Your task to perform on an android device: open device folders in google photos Image 0: 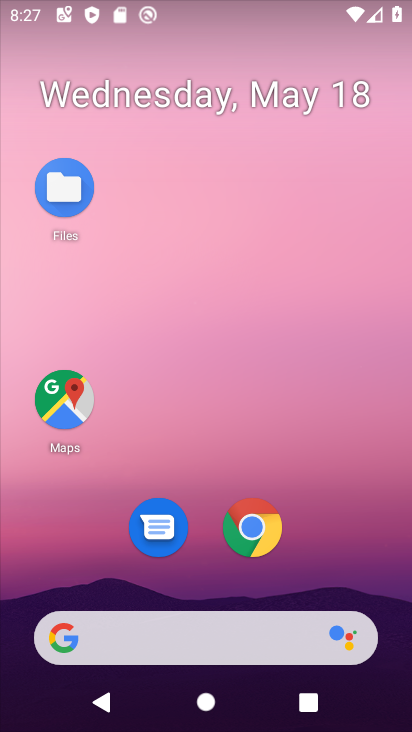
Step 0: drag from (271, 661) to (145, 156)
Your task to perform on an android device: open device folders in google photos Image 1: 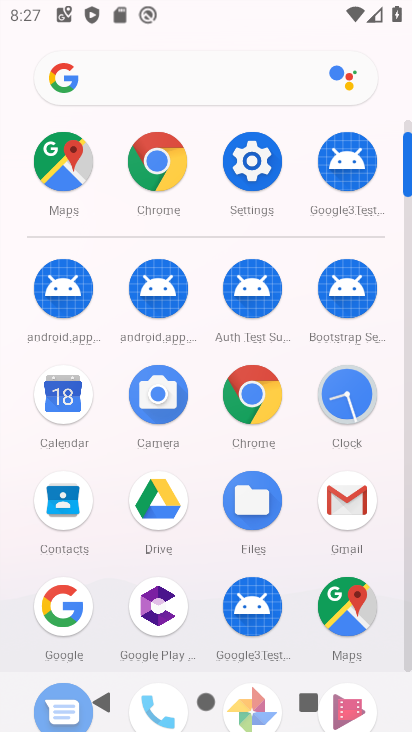
Step 1: drag from (188, 556) to (160, 397)
Your task to perform on an android device: open device folders in google photos Image 2: 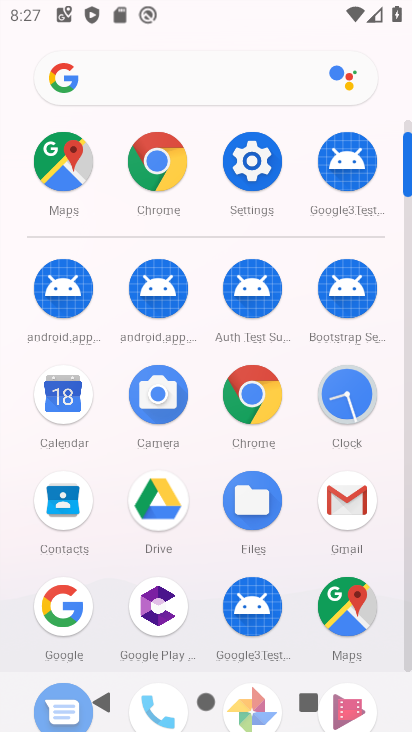
Step 2: click (211, 416)
Your task to perform on an android device: open device folders in google photos Image 3: 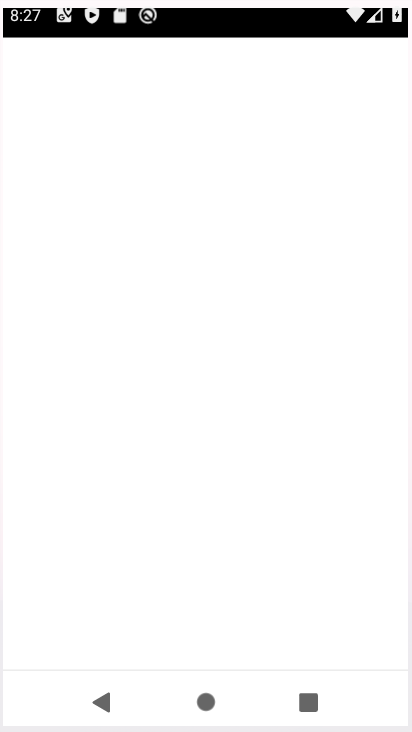
Step 3: drag from (271, 509) to (265, 278)
Your task to perform on an android device: open device folders in google photos Image 4: 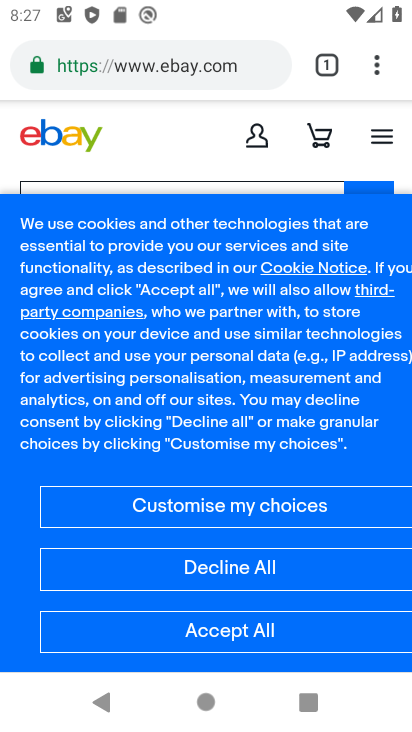
Step 4: press back button
Your task to perform on an android device: open device folders in google photos Image 5: 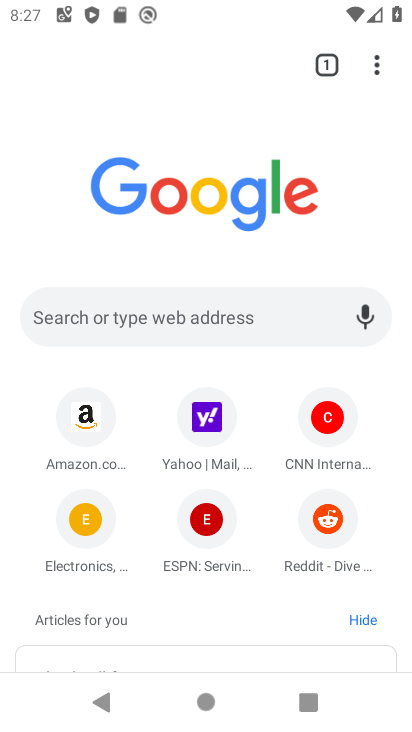
Step 5: press back button
Your task to perform on an android device: open device folders in google photos Image 6: 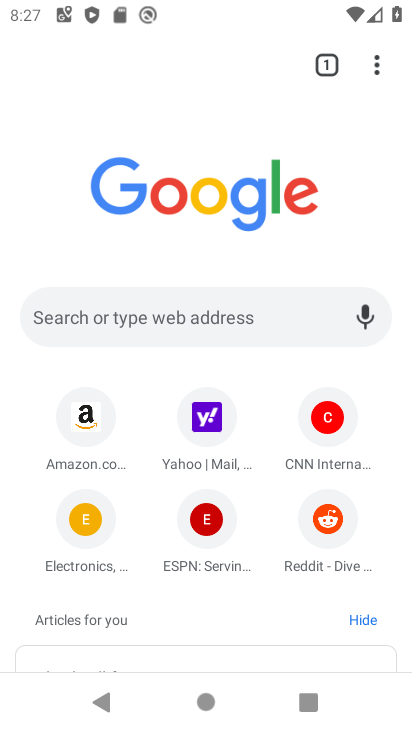
Step 6: press back button
Your task to perform on an android device: open device folders in google photos Image 7: 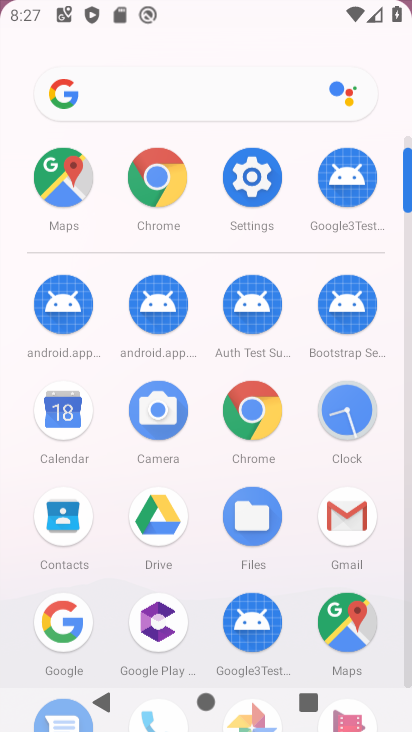
Step 7: press back button
Your task to perform on an android device: open device folders in google photos Image 8: 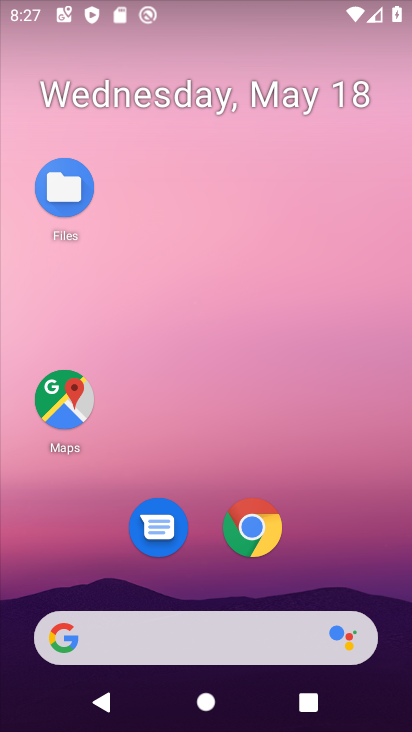
Step 8: press back button
Your task to perform on an android device: open device folders in google photos Image 9: 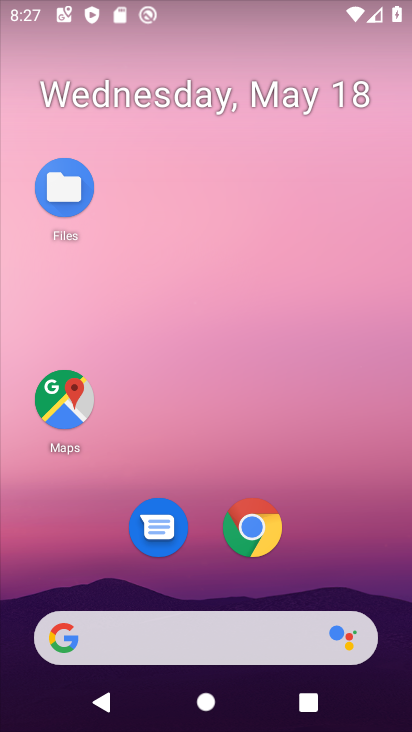
Step 9: drag from (297, 619) to (274, 182)
Your task to perform on an android device: open device folders in google photos Image 10: 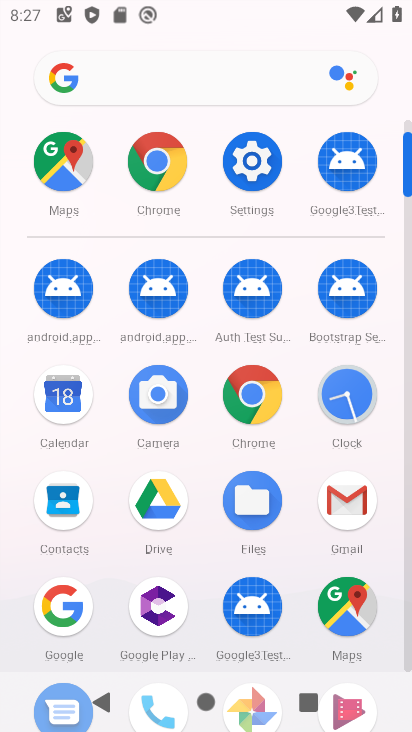
Step 10: drag from (313, 595) to (258, 131)
Your task to perform on an android device: open device folders in google photos Image 11: 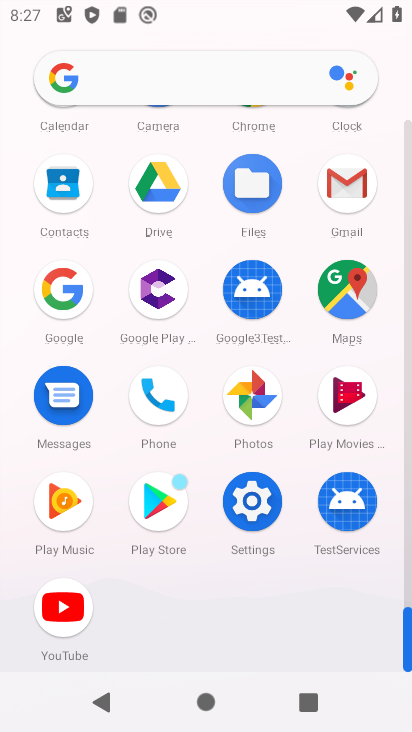
Step 11: drag from (292, 454) to (314, 25)
Your task to perform on an android device: open device folders in google photos Image 12: 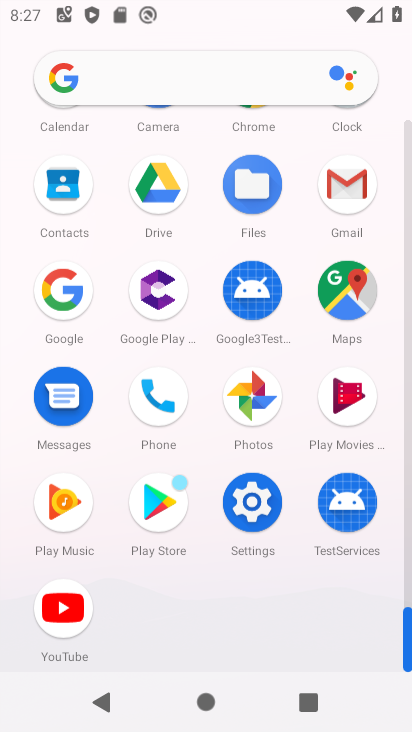
Step 12: click (254, 387)
Your task to perform on an android device: open device folders in google photos Image 13: 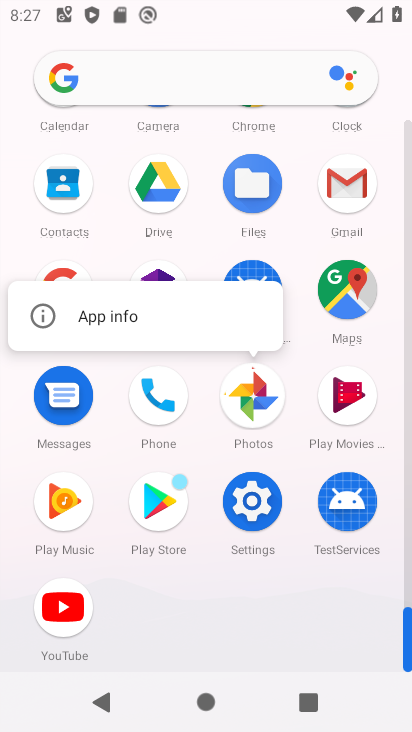
Step 13: click (255, 385)
Your task to perform on an android device: open device folders in google photos Image 14: 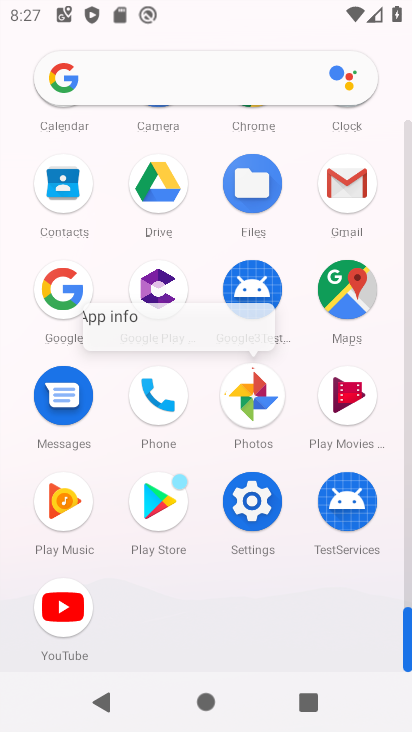
Step 14: click (253, 388)
Your task to perform on an android device: open device folders in google photos Image 15: 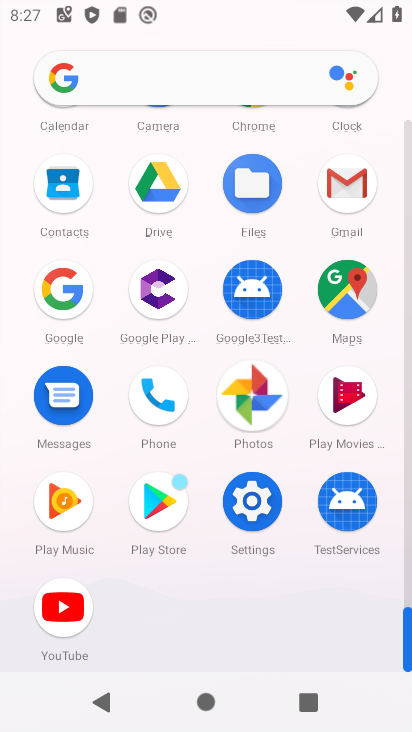
Step 15: click (254, 388)
Your task to perform on an android device: open device folders in google photos Image 16: 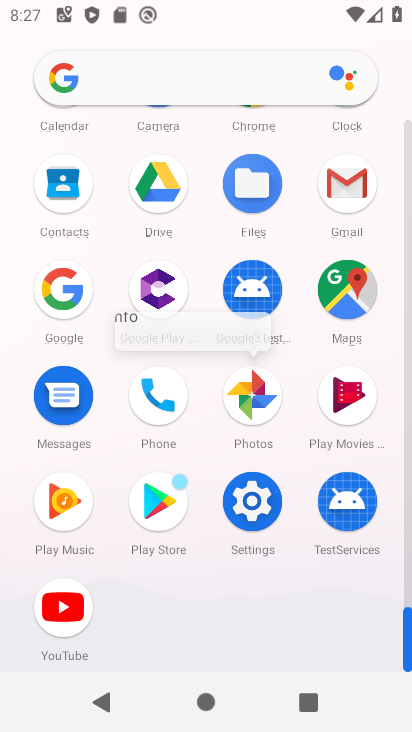
Step 16: click (254, 388)
Your task to perform on an android device: open device folders in google photos Image 17: 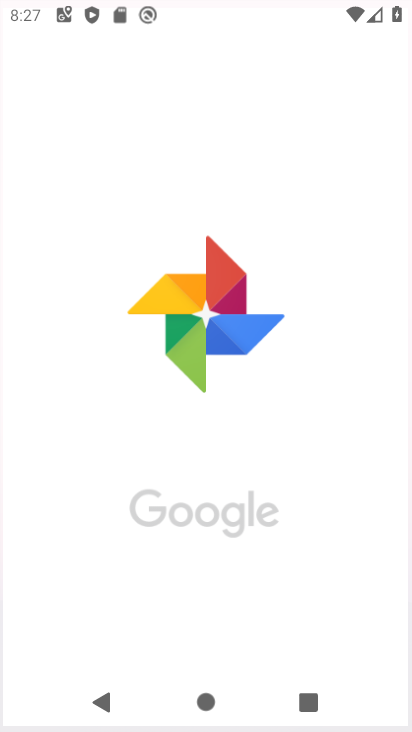
Step 17: click (256, 388)
Your task to perform on an android device: open device folders in google photos Image 18: 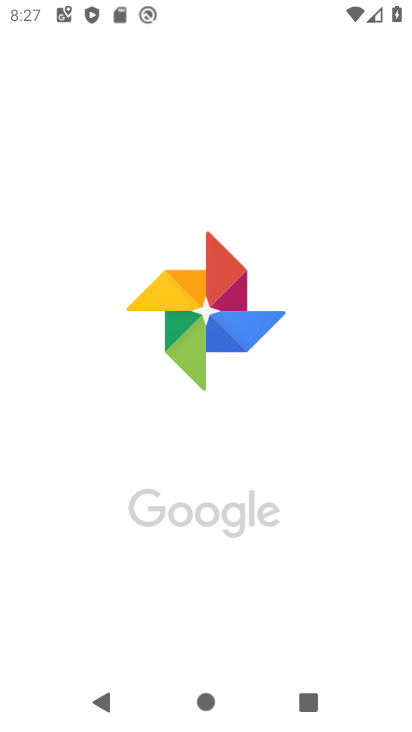
Step 18: click (256, 388)
Your task to perform on an android device: open device folders in google photos Image 19: 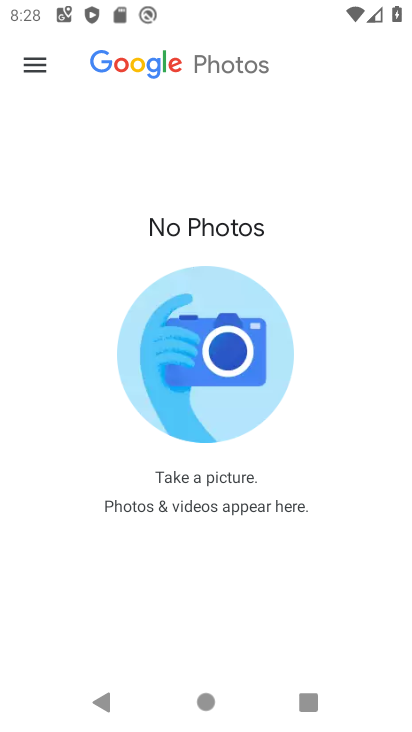
Step 19: click (32, 66)
Your task to perform on an android device: open device folders in google photos Image 20: 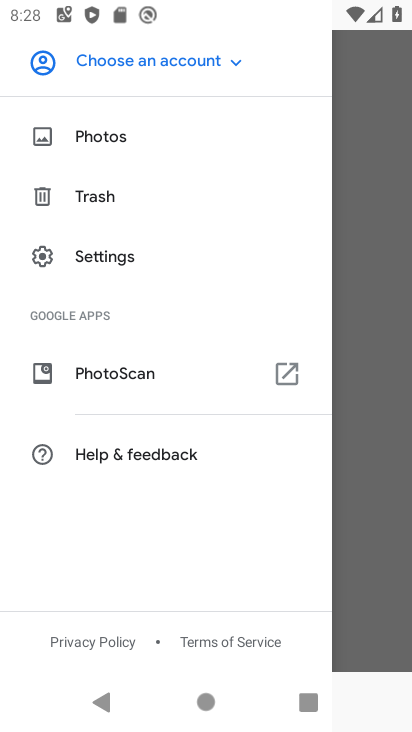
Step 20: drag from (112, 185) to (132, 554)
Your task to perform on an android device: open device folders in google photos Image 21: 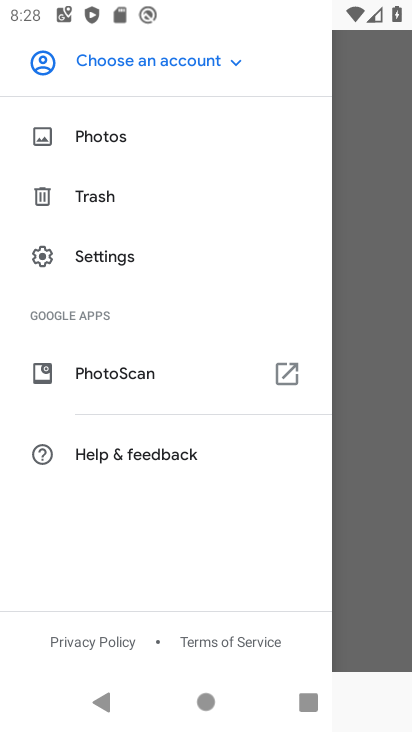
Step 21: drag from (116, 115) to (133, 440)
Your task to perform on an android device: open device folders in google photos Image 22: 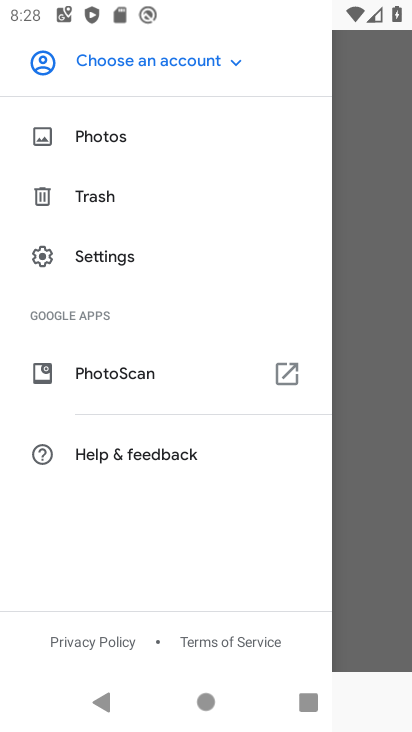
Step 22: click (100, 136)
Your task to perform on an android device: open device folders in google photos Image 23: 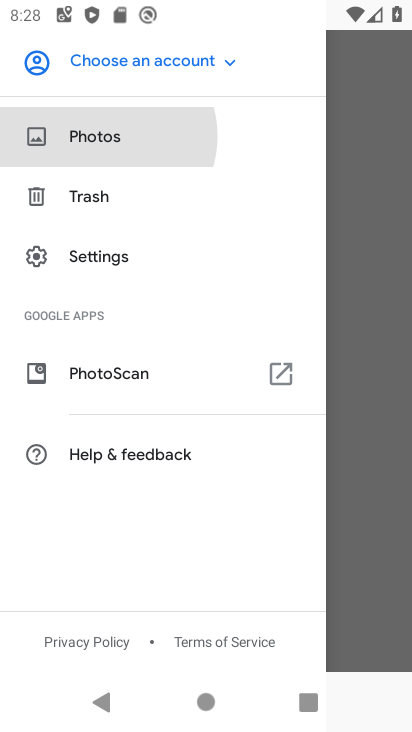
Step 23: click (100, 135)
Your task to perform on an android device: open device folders in google photos Image 24: 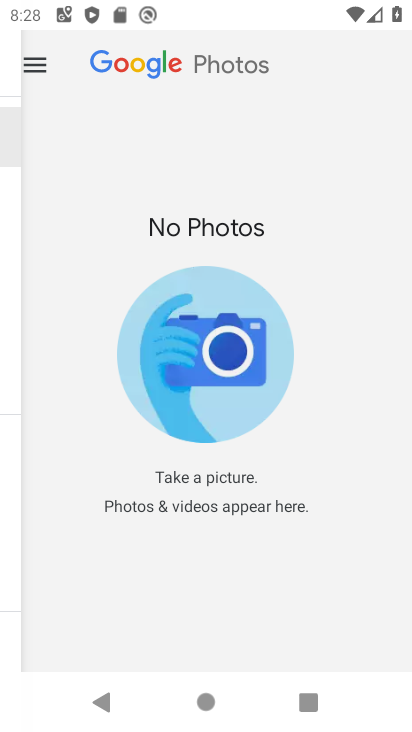
Step 24: click (100, 134)
Your task to perform on an android device: open device folders in google photos Image 25: 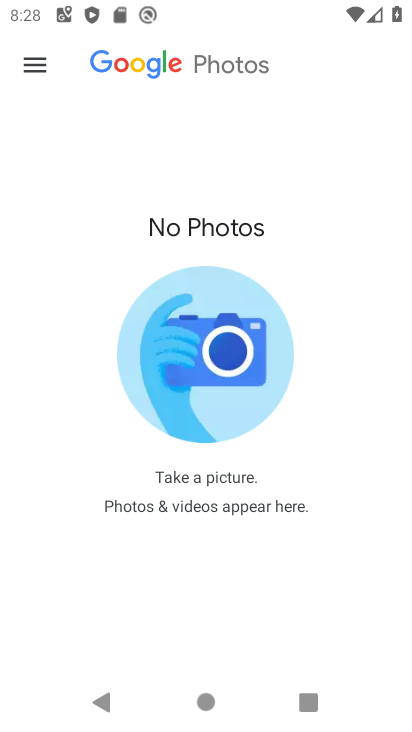
Step 25: click (100, 134)
Your task to perform on an android device: open device folders in google photos Image 26: 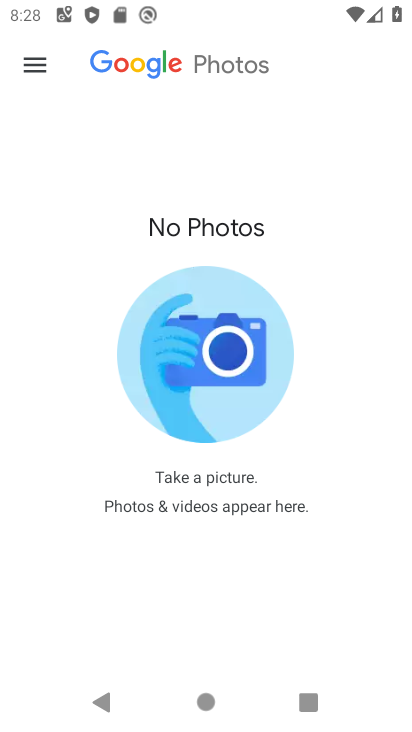
Step 26: click (38, 69)
Your task to perform on an android device: open device folders in google photos Image 27: 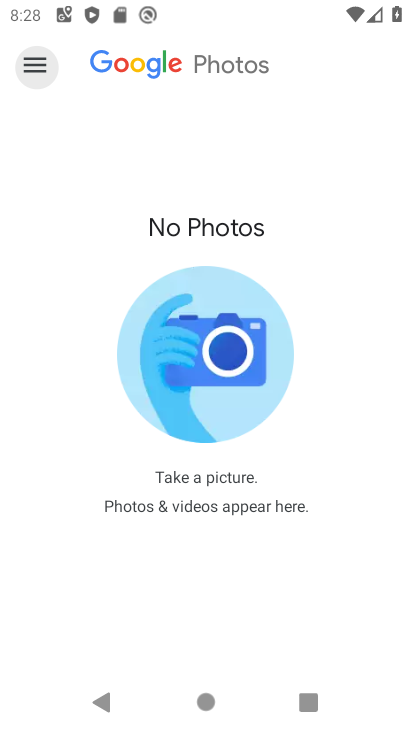
Step 27: click (38, 69)
Your task to perform on an android device: open device folders in google photos Image 28: 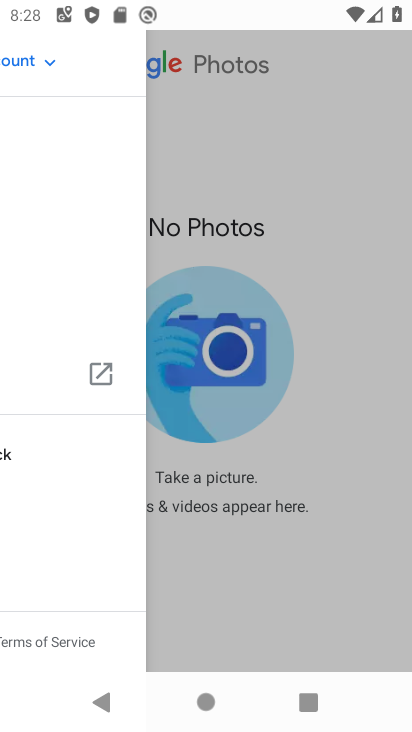
Step 28: click (38, 69)
Your task to perform on an android device: open device folders in google photos Image 29: 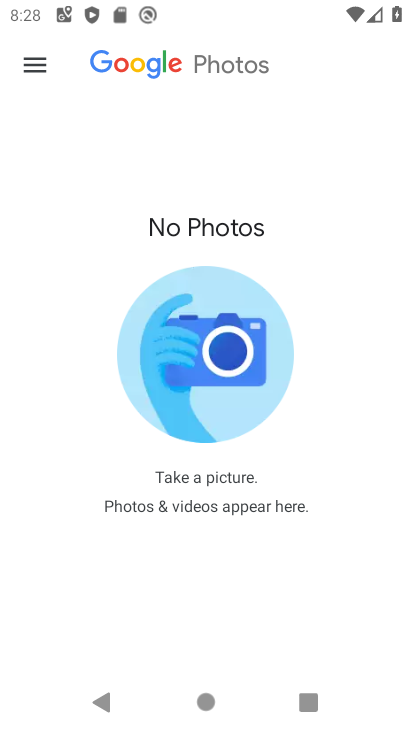
Step 29: click (212, 366)
Your task to perform on an android device: open device folders in google photos Image 30: 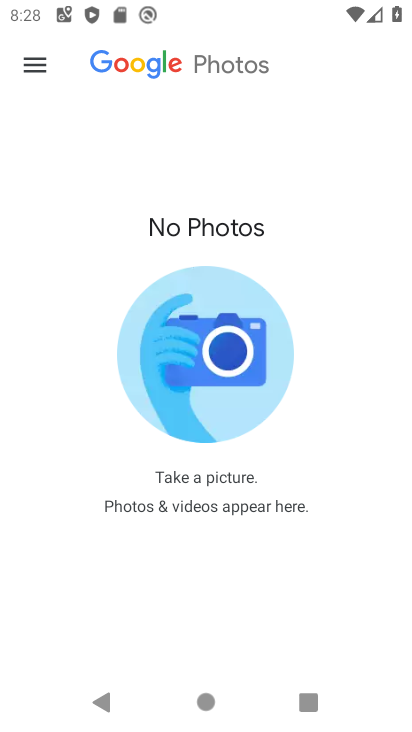
Step 30: click (211, 368)
Your task to perform on an android device: open device folders in google photos Image 31: 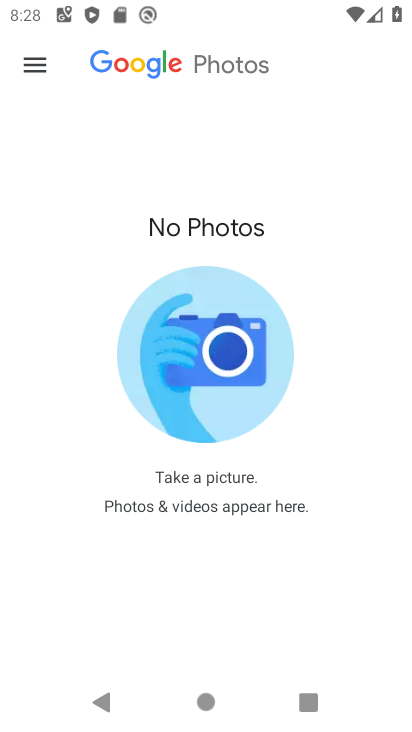
Step 31: click (213, 362)
Your task to perform on an android device: open device folders in google photos Image 32: 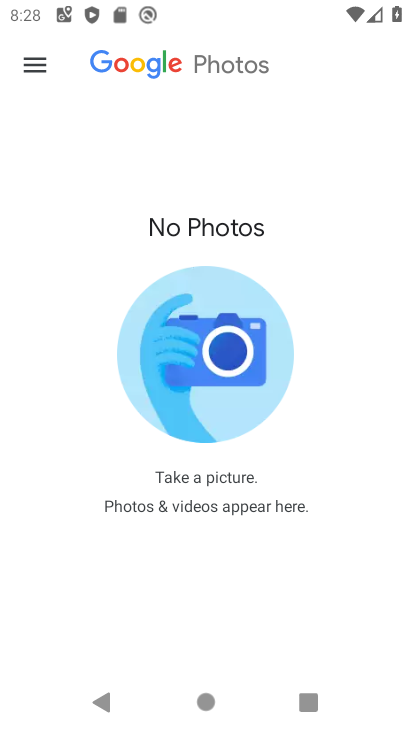
Step 32: click (193, 371)
Your task to perform on an android device: open device folders in google photos Image 33: 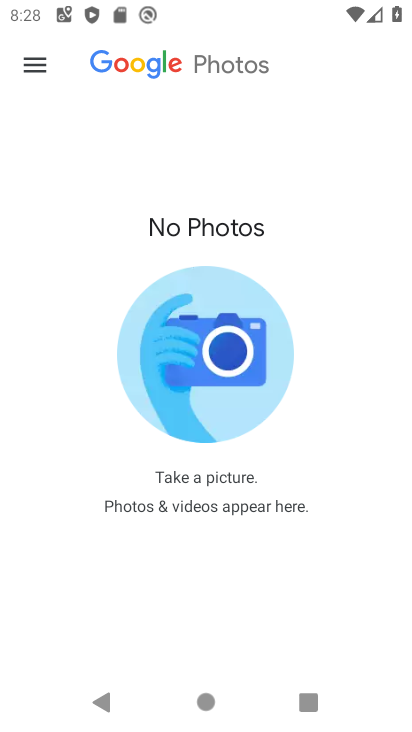
Step 33: click (193, 371)
Your task to perform on an android device: open device folders in google photos Image 34: 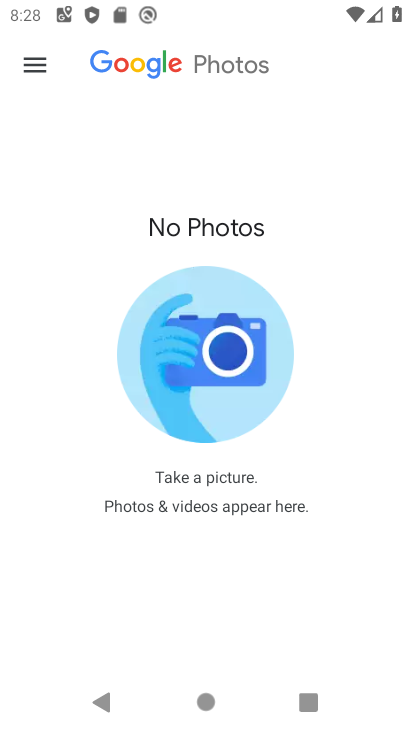
Step 34: click (182, 371)
Your task to perform on an android device: open device folders in google photos Image 35: 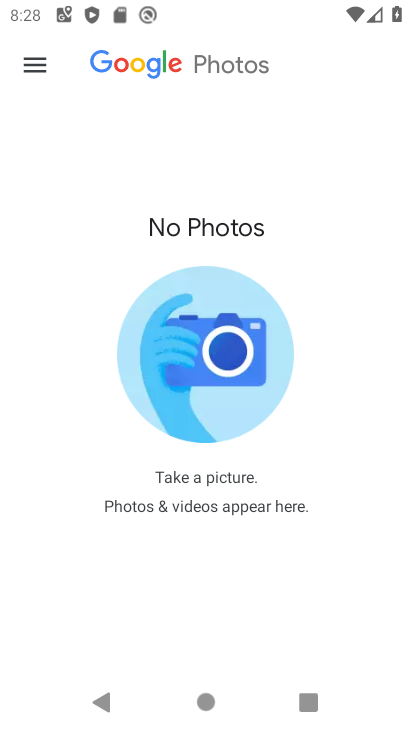
Step 35: click (178, 362)
Your task to perform on an android device: open device folders in google photos Image 36: 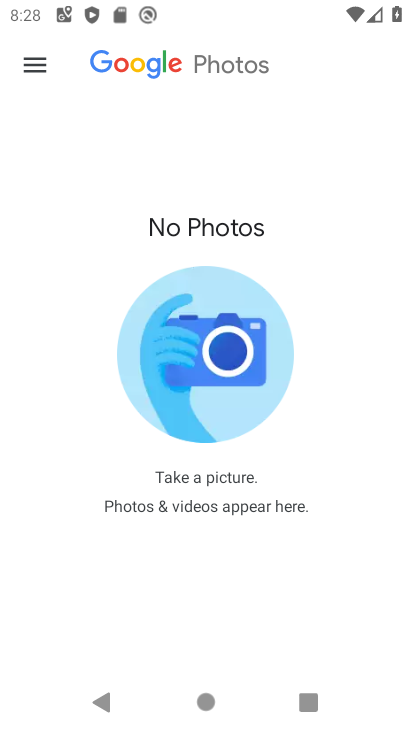
Step 36: click (174, 345)
Your task to perform on an android device: open device folders in google photos Image 37: 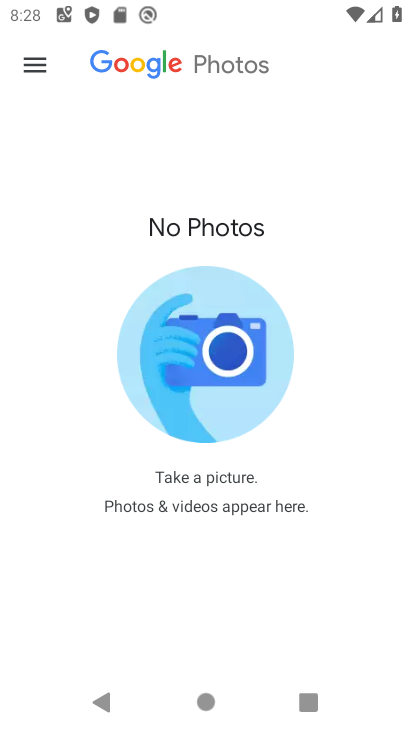
Step 37: click (165, 333)
Your task to perform on an android device: open device folders in google photos Image 38: 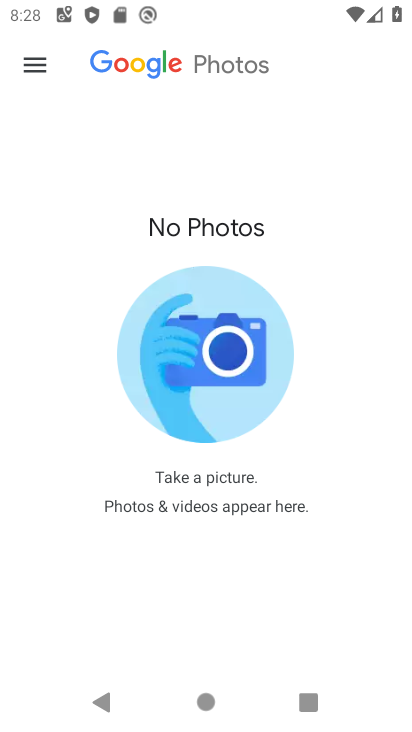
Step 38: click (165, 330)
Your task to perform on an android device: open device folders in google photos Image 39: 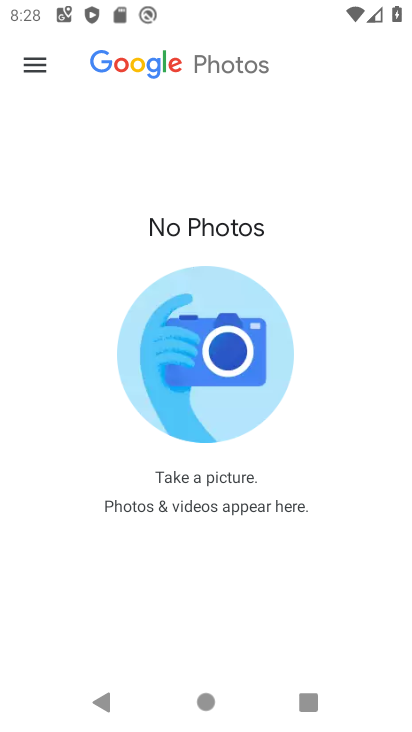
Step 39: click (161, 320)
Your task to perform on an android device: open device folders in google photos Image 40: 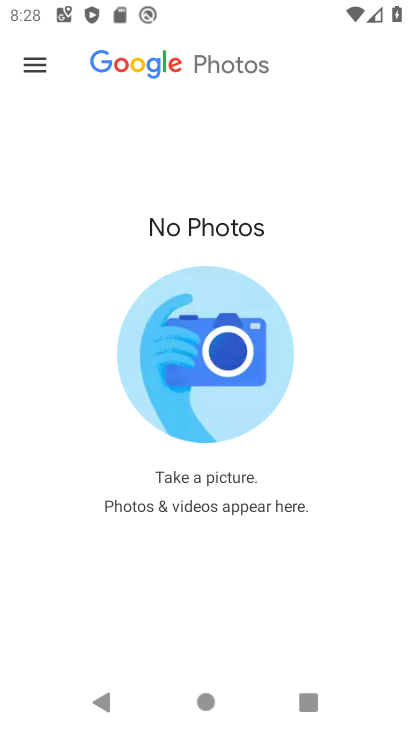
Step 40: click (161, 318)
Your task to perform on an android device: open device folders in google photos Image 41: 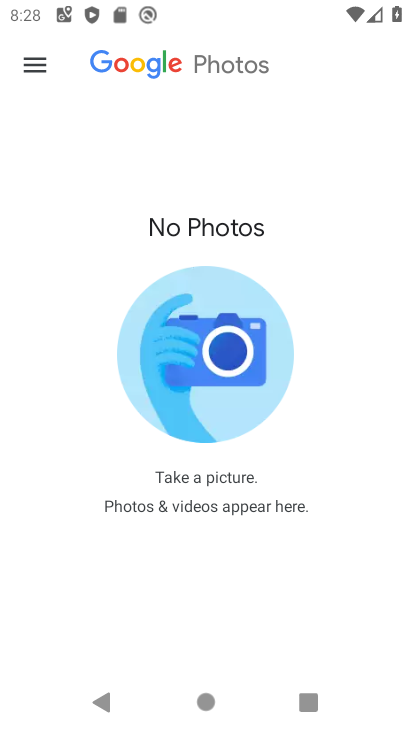
Step 41: click (25, 65)
Your task to perform on an android device: open device folders in google photos Image 42: 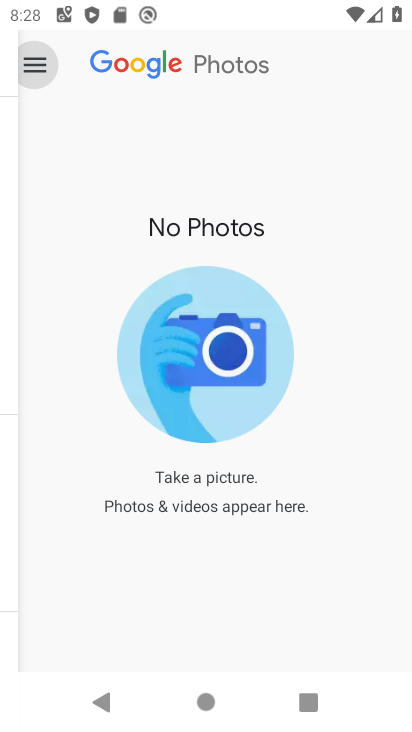
Step 42: click (25, 65)
Your task to perform on an android device: open device folders in google photos Image 43: 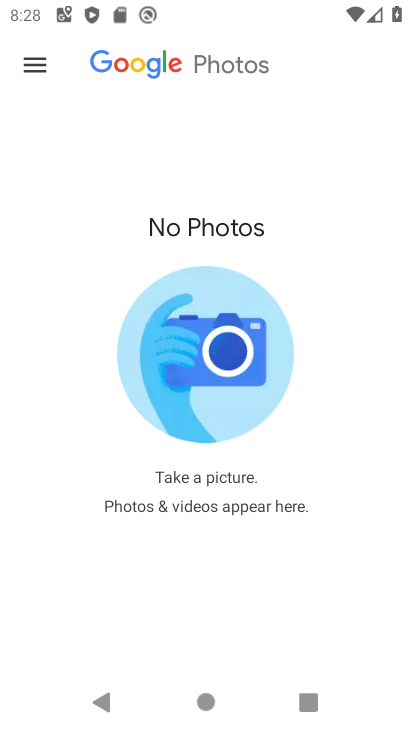
Step 43: click (27, 65)
Your task to perform on an android device: open device folders in google photos Image 44: 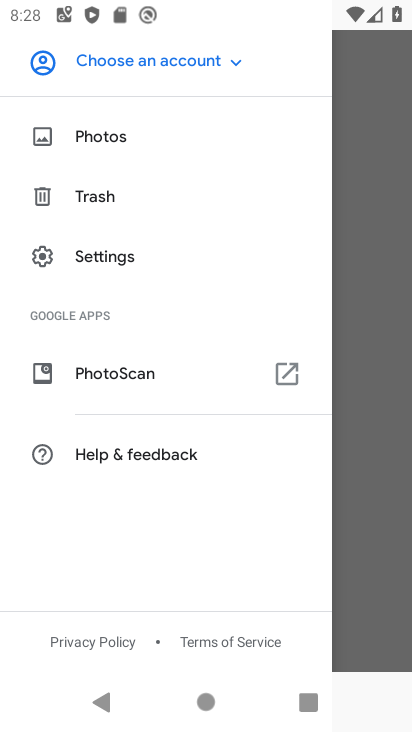
Step 44: click (27, 65)
Your task to perform on an android device: open device folders in google photos Image 45: 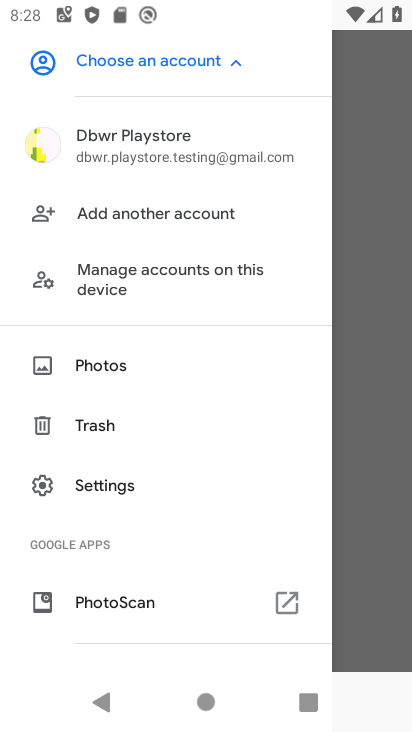
Step 45: click (105, 249)
Your task to perform on an android device: open device folders in google photos Image 46: 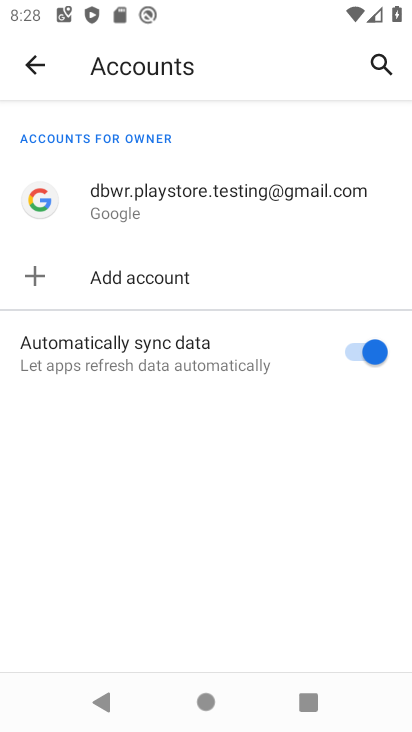
Step 46: click (31, 60)
Your task to perform on an android device: open device folders in google photos Image 47: 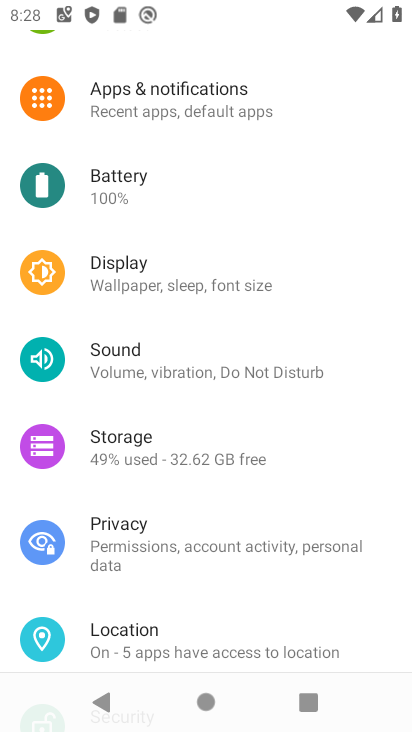
Step 47: press home button
Your task to perform on an android device: open device folders in google photos Image 48: 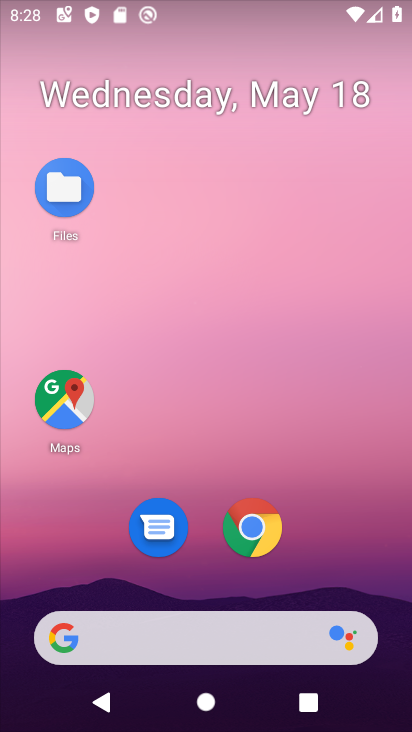
Step 48: drag from (259, 697) to (181, 46)
Your task to perform on an android device: open device folders in google photos Image 49: 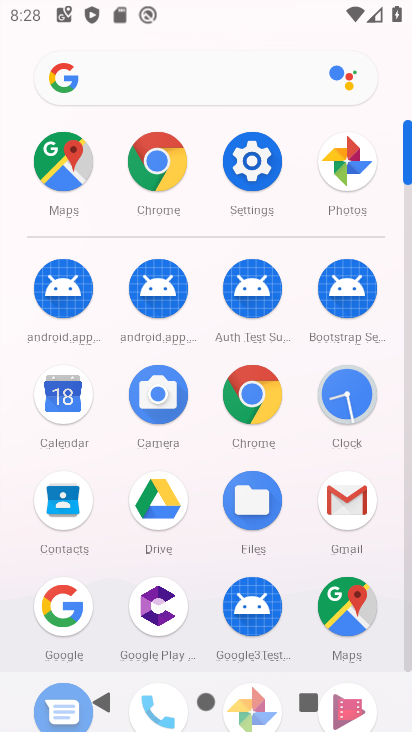
Step 49: click (356, 154)
Your task to perform on an android device: open device folders in google photos Image 50: 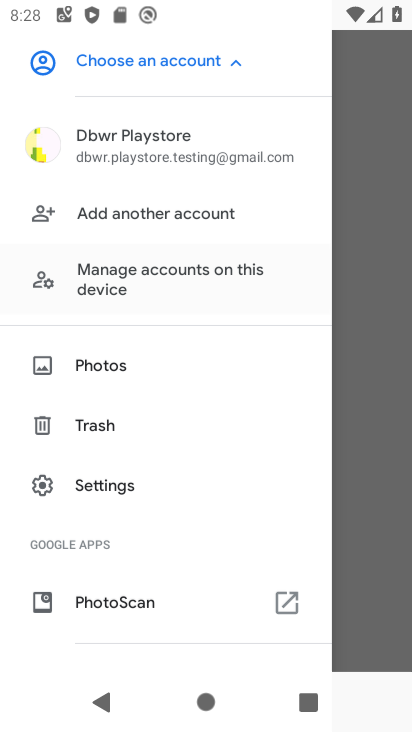
Step 50: click (349, 163)
Your task to perform on an android device: open device folders in google photos Image 51: 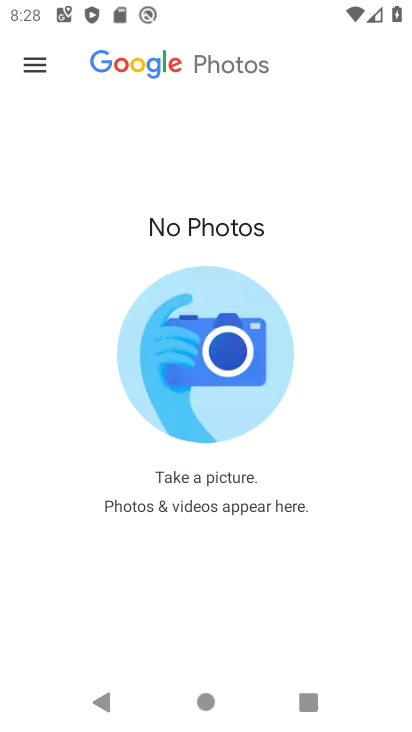
Step 51: click (48, 63)
Your task to perform on an android device: open device folders in google photos Image 52: 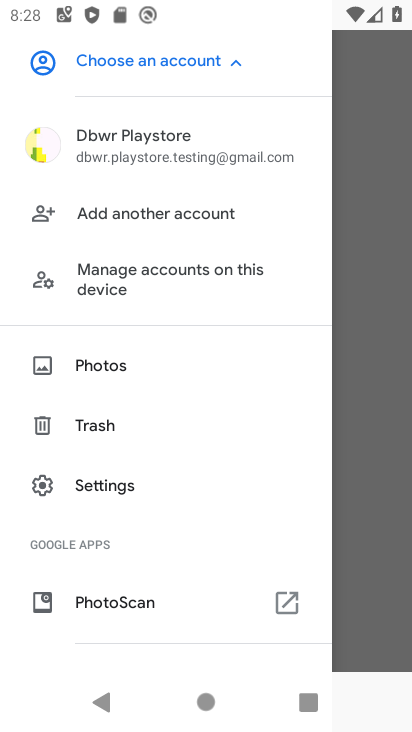
Step 52: drag from (159, 168) to (161, 570)
Your task to perform on an android device: open device folders in google photos Image 53: 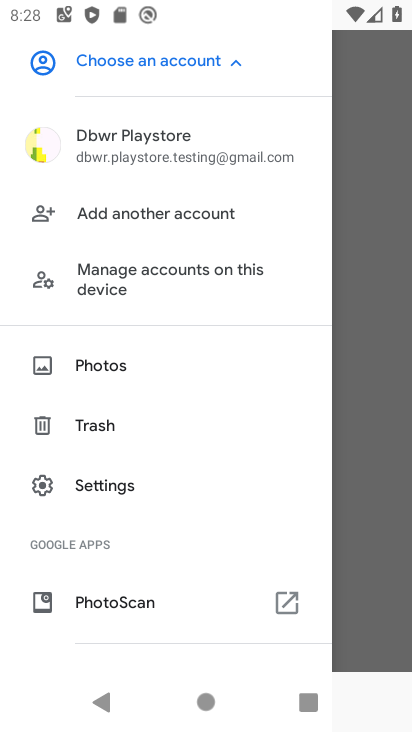
Step 53: drag from (138, 158) to (144, 693)
Your task to perform on an android device: open device folders in google photos Image 54: 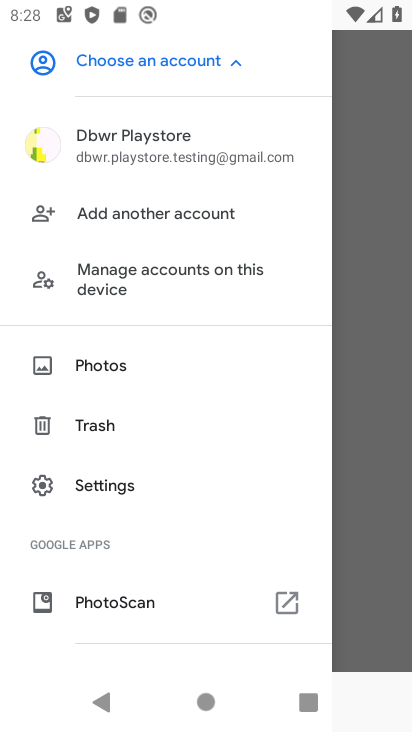
Step 54: drag from (167, 393) to (172, 64)
Your task to perform on an android device: open device folders in google photos Image 55: 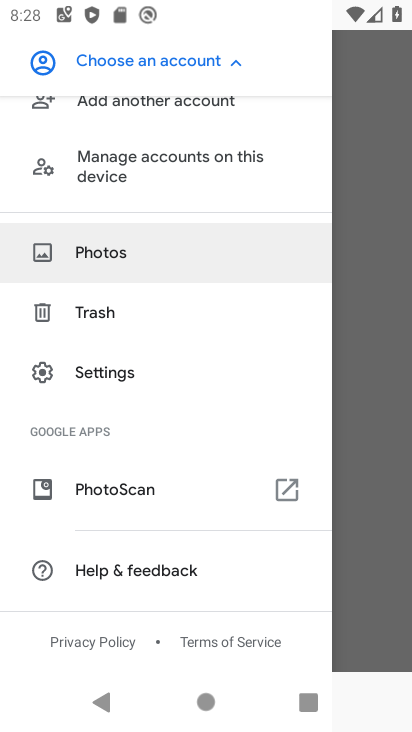
Step 55: drag from (104, 420) to (101, 147)
Your task to perform on an android device: open device folders in google photos Image 56: 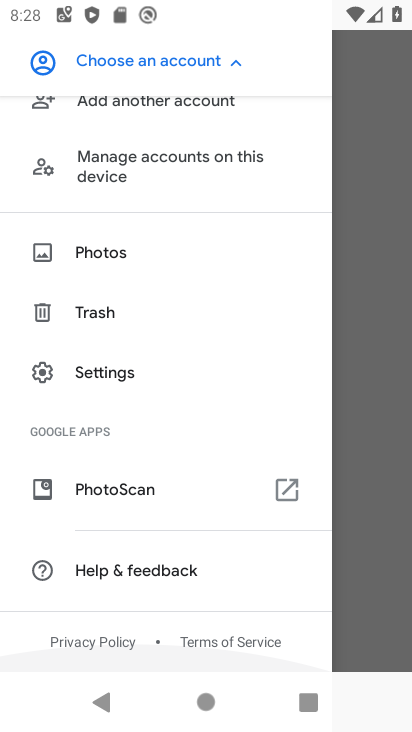
Step 56: drag from (154, 425) to (154, 120)
Your task to perform on an android device: open device folders in google photos Image 57: 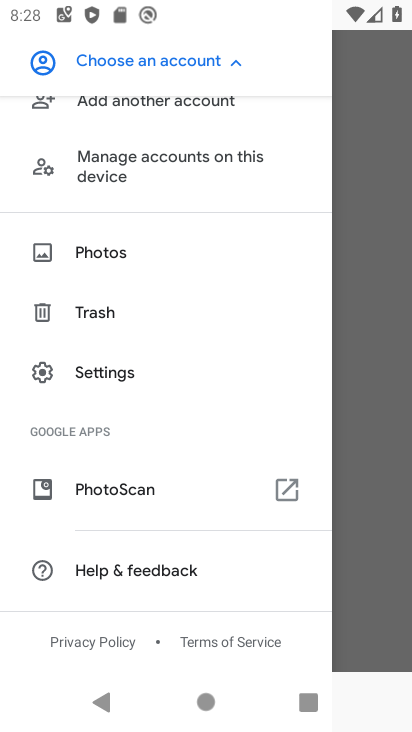
Step 57: drag from (146, 270) to (216, 681)
Your task to perform on an android device: open device folders in google photos Image 58: 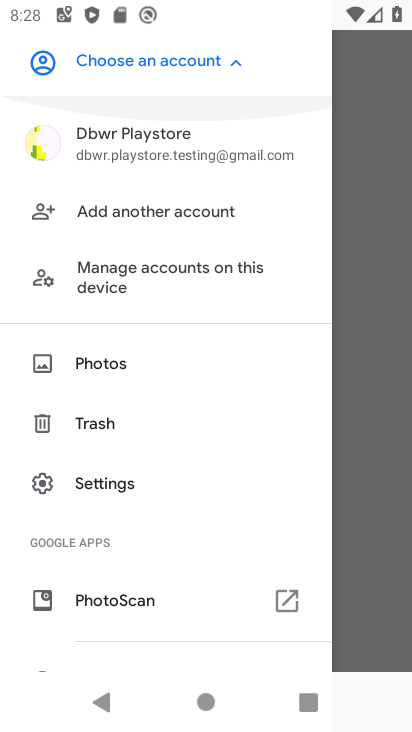
Step 58: drag from (171, 259) to (182, 549)
Your task to perform on an android device: open device folders in google photos Image 59: 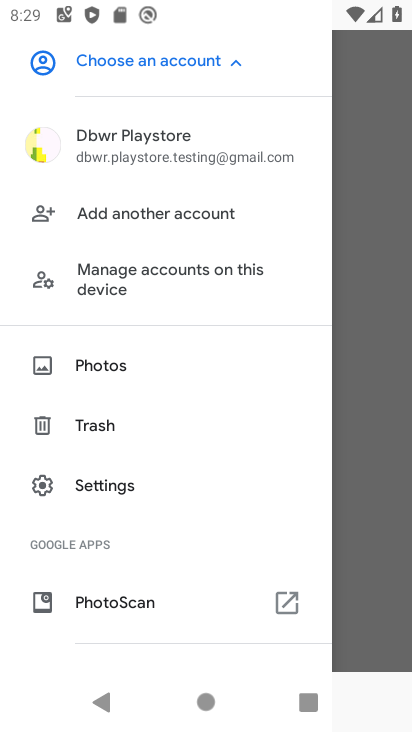
Step 59: click (93, 360)
Your task to perform on an android device: open device folders in google photos Image 60: 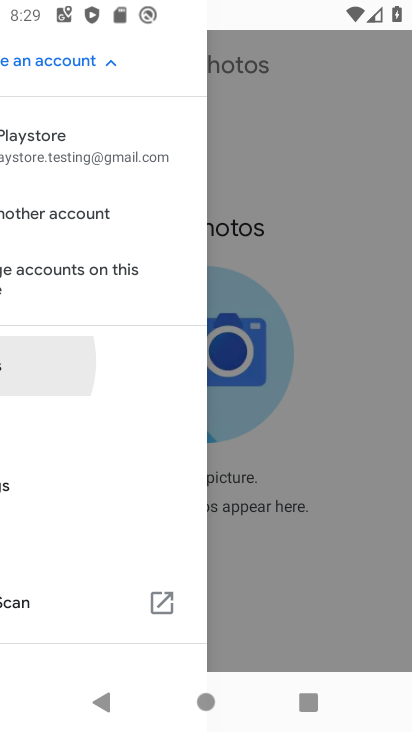
Step 60: click (103, 486)
Your task to perform on an android device: open device folders in google photos Image 61: 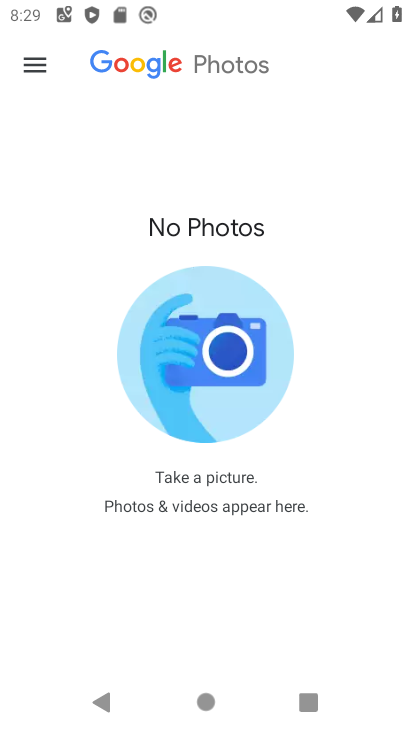
Step 61: click (103, 486)
Your task to perform on an android device: open device folders in google photos Image 62: 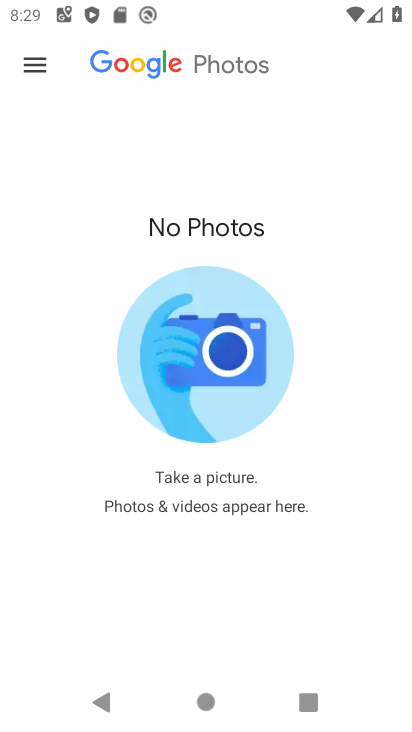
Step 62: click (34, 78)
Your task to perform on an android device: open device folders in google photos Image 63: 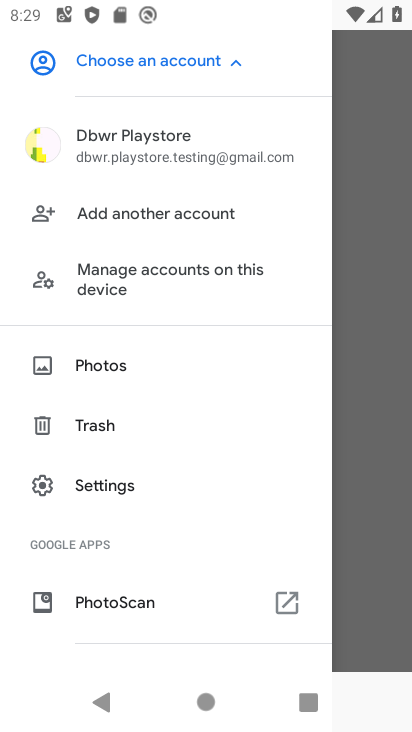
Step 63: click (35, 77)
Your task to perform on an android device: open device folders in google photos Image 64: 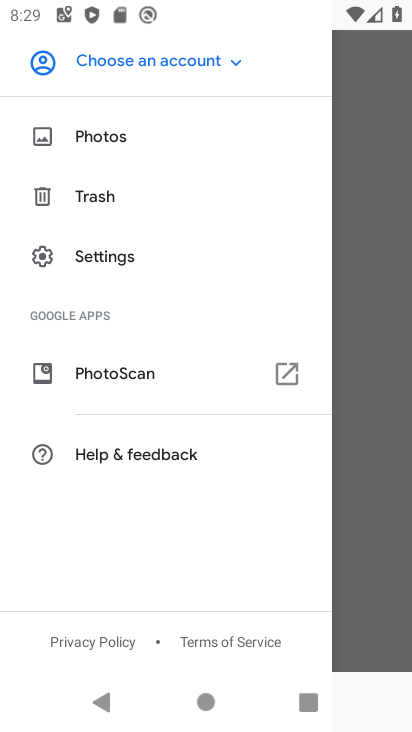
Step 64: click (107, 250)
Your task to perform on an android device: open device folders in google photos Image 65: 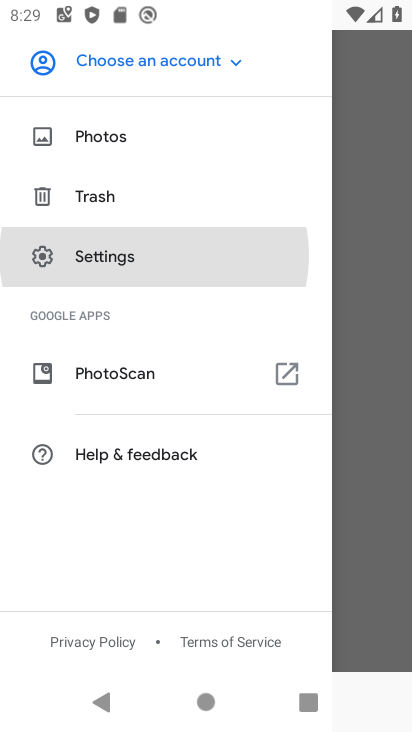
Step 65: click (107, 250)
Your task to perform on an android device: open device folders in google photos Image 66: 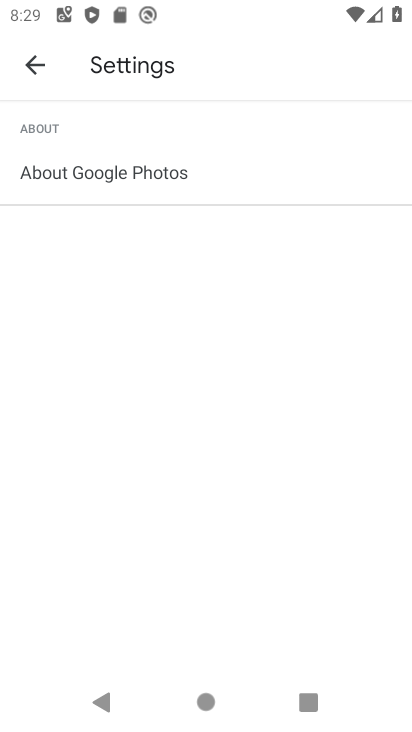
Step 66: click (99, 183)
Your task to perform on an android device: open device folders in google photos Image 67: 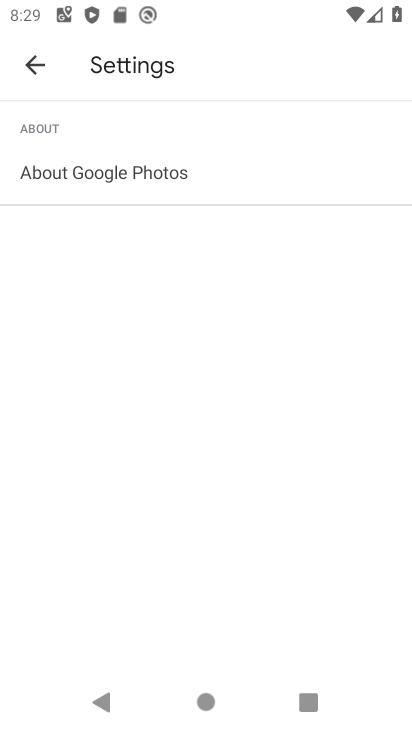
Step 67: click (99, 182)
Your task to perform on an android device: open device folders in google photos Image 68: 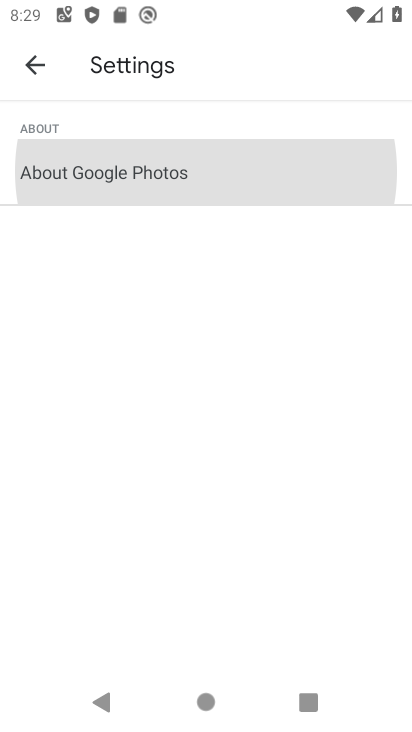
Step 68: click (100, 181)
Your task to perform on an android device: open device folders in google photos Image 69: 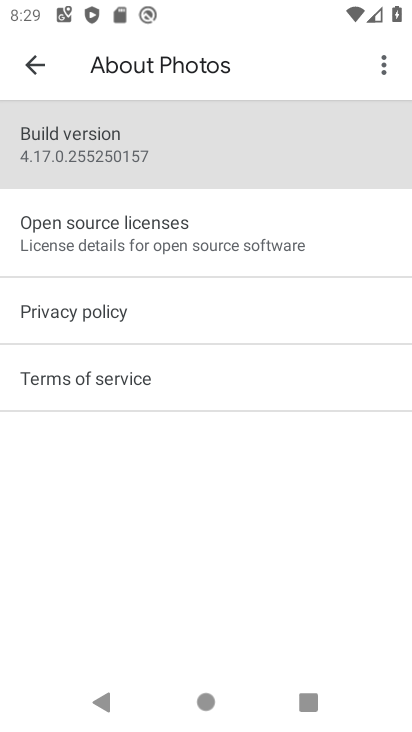
Step 69: click (102, 182)
Your task to perform on an android device: open device folders in google photos Image 70: 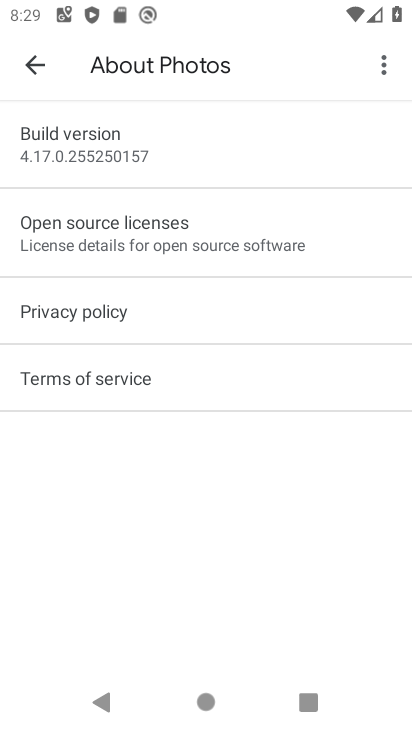
Step 70: click (36, 67)
Your task to perform on an android device: open device folders in google photos Image 71: 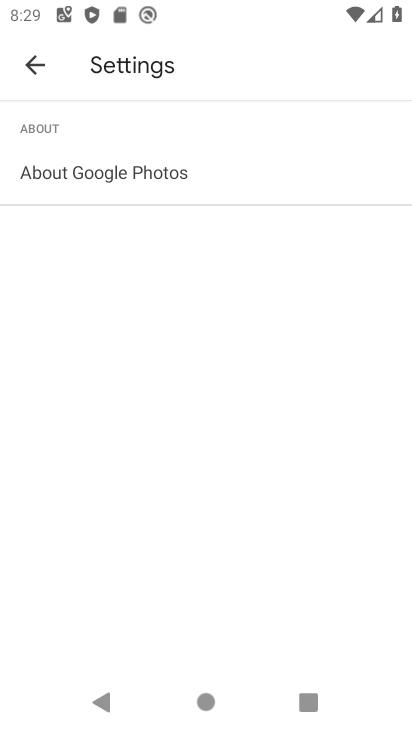
Step 71: click (35, 65)
Your task to perform on an android device: open device folders in google photos Image 72: 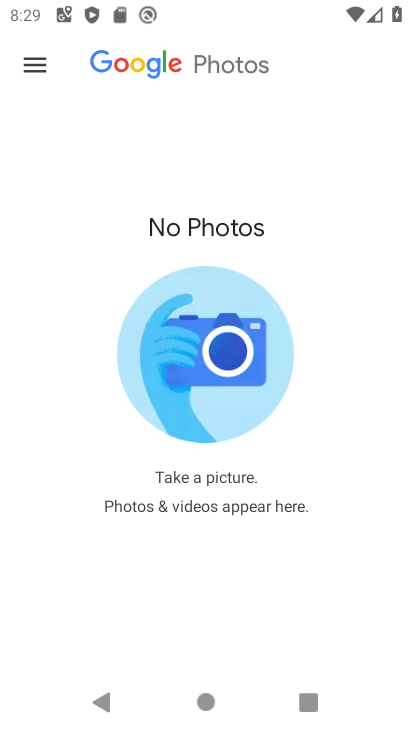
Step 72: click (34, 64)
Your task to perform on an android device: open device folders in google photos Image 73: 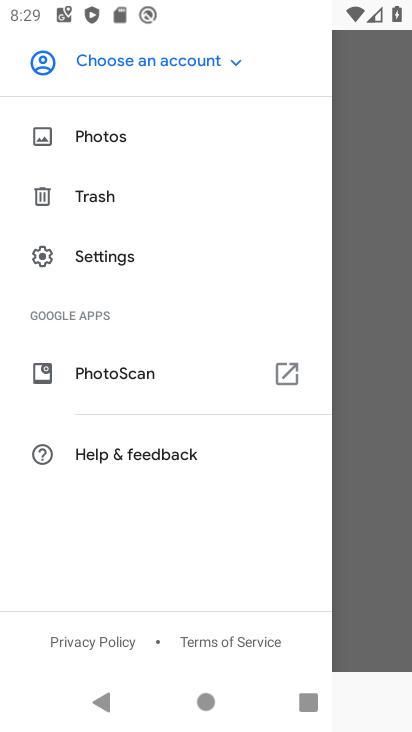
Step 73: task complete